Your task to perform on an android device: uninstall "Grab" Image 0: 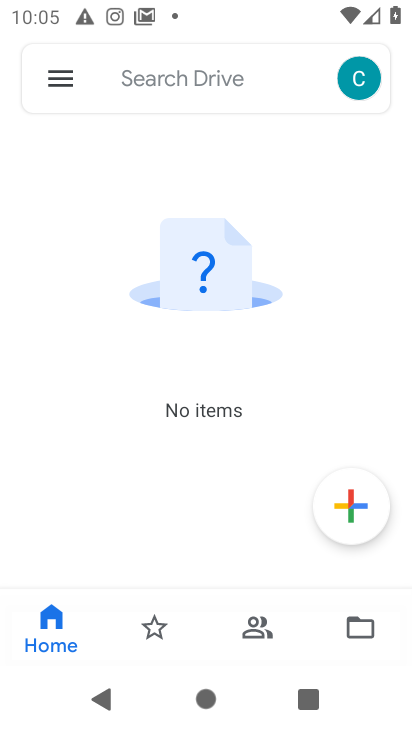
Step 0: press home button
Your task to perform on an android device: uninstall "Grab" Image 1: 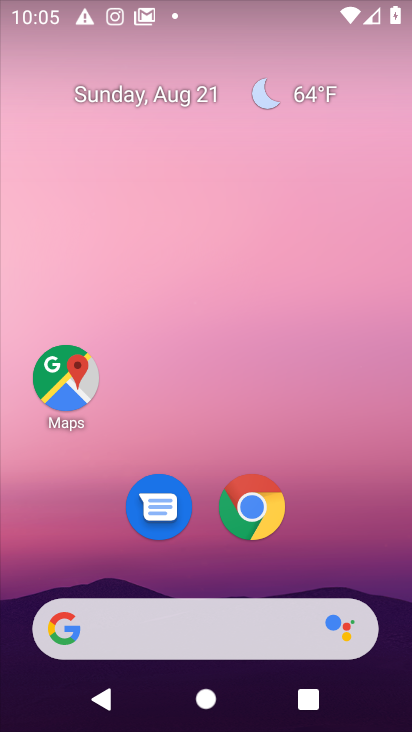
Step 1: drag from (167, 526) to (175, 6)
Your task to perform on an android device: uninstall "Grab" Image 2: 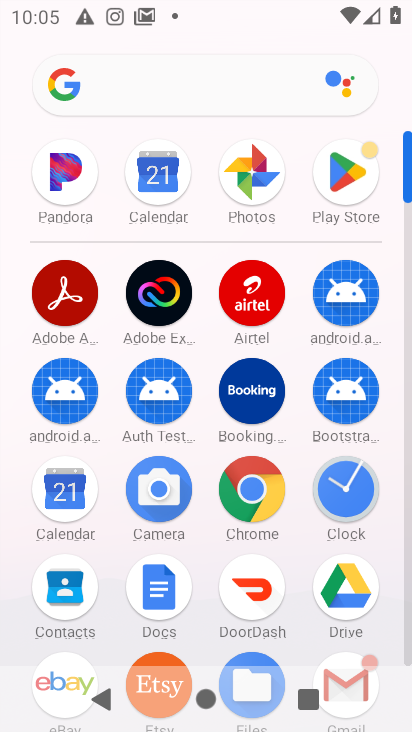
Step 2: click (349, 170)
Your task to perform on an android device: uninstall "Grab" Image 3: 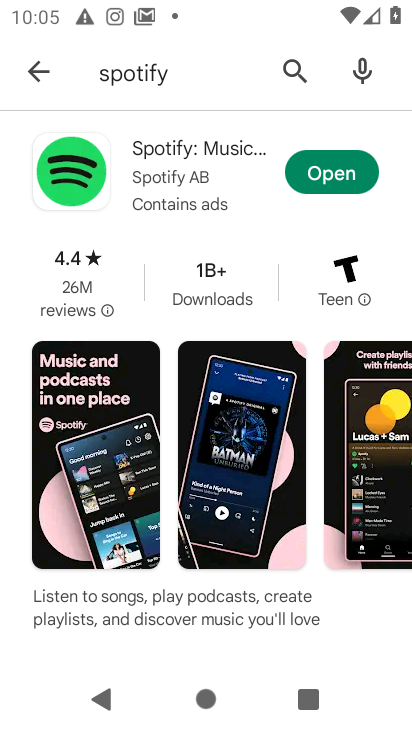
Step 3: click (39, 64)
Your task to perform on an android device: uninstall "Grab" Image 4: 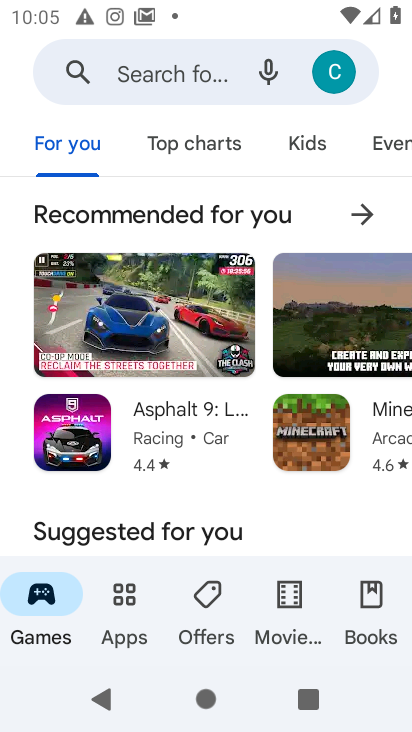
Step 4: click (176, 70)
Your task to perform on an android device: uninstall "Grab" Image 5: 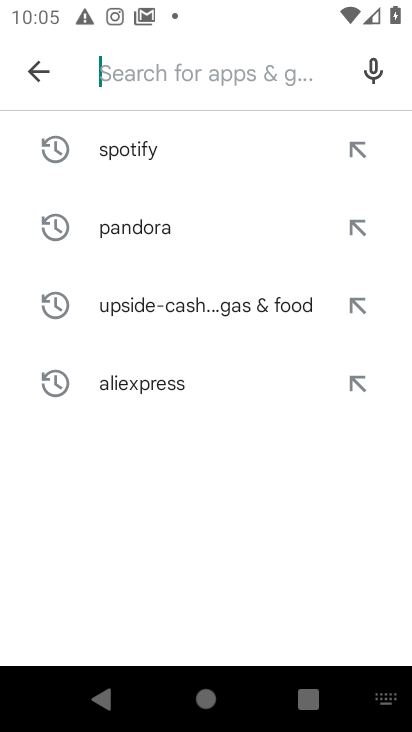
Step 5: type "Grab"
Your task to perform on an android device: uninstall "Grab" Image 6: 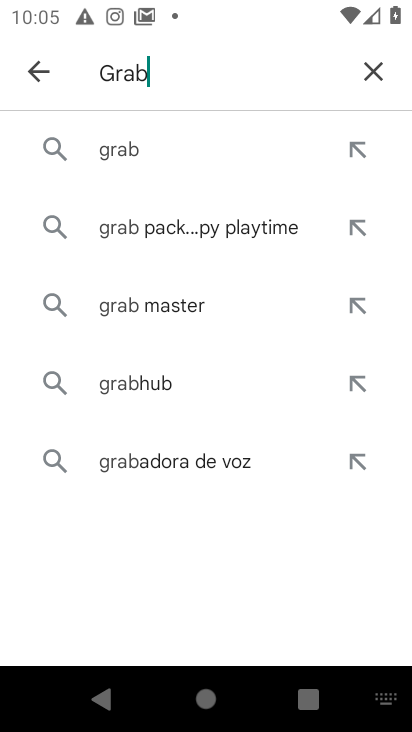
Step 6: click (113, 146)
Your task to perform on an android device: uninstall "Grab" Image 7: 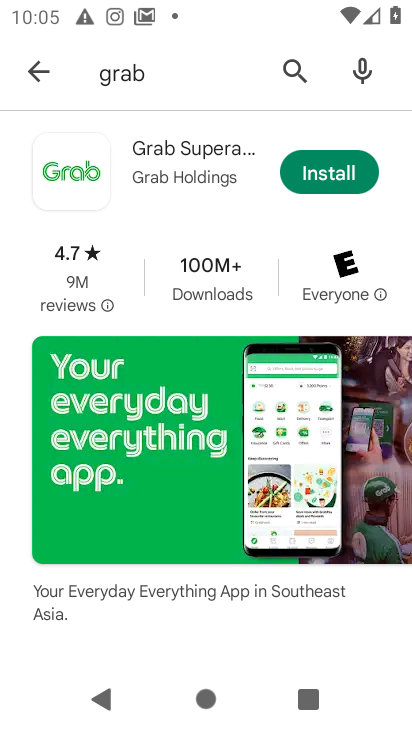
Step 7: task complete